Your task to perform on an android device: Go to privacy settings Image 0: 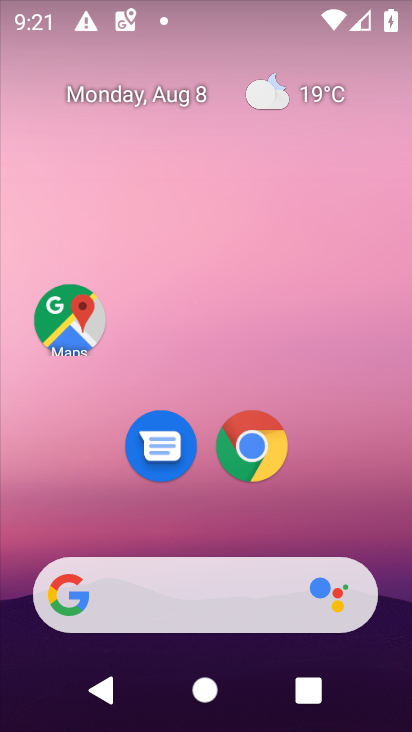
Step 0: drag from (371, 543) to (333, 216)
Your task to perform on an android device: Go to privacy settings Image 1: 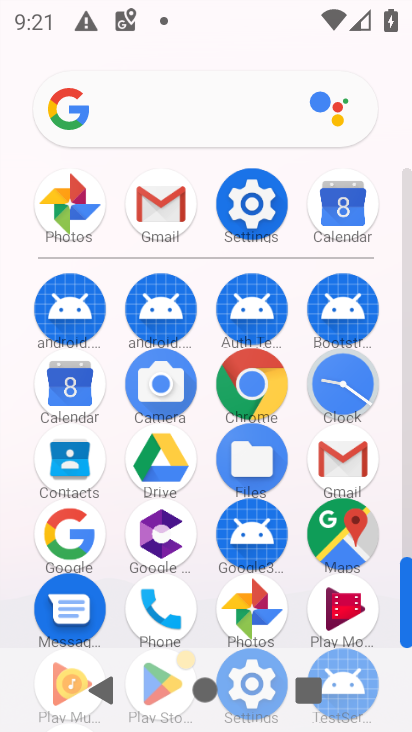
Step 1: click (256, 203)
Your task to perform on an android device: Go to privacy settings Image 2: 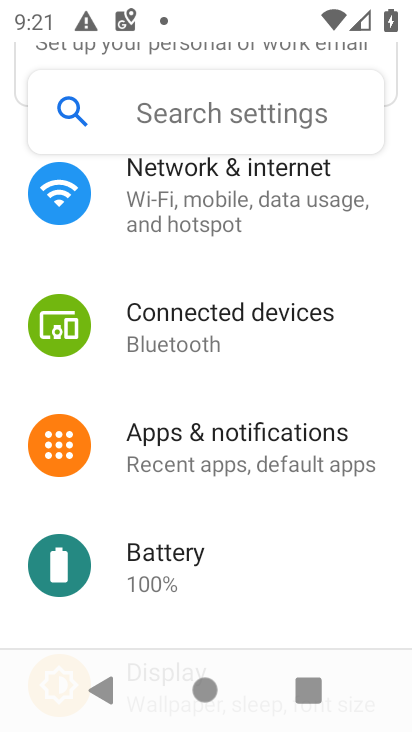
Step 2: drag from (263, 514) to (295, 226)
Your task to perform on an android device: Go to privacy settings Image 3: 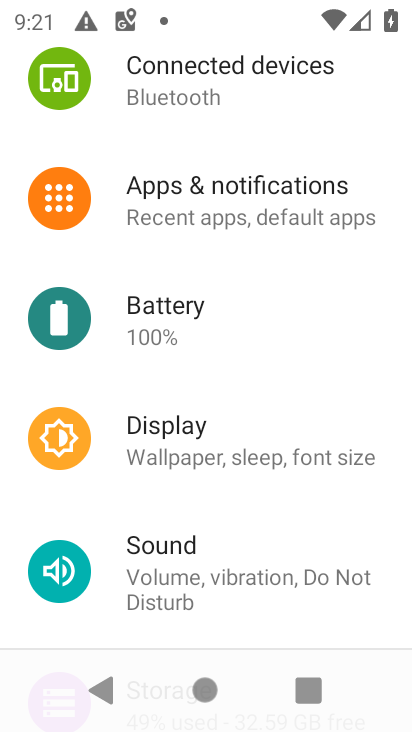
Step 3: drag from (267, 545) to (279, 261)
Your task to perform on an android device: Go to privacy settings Image 4: 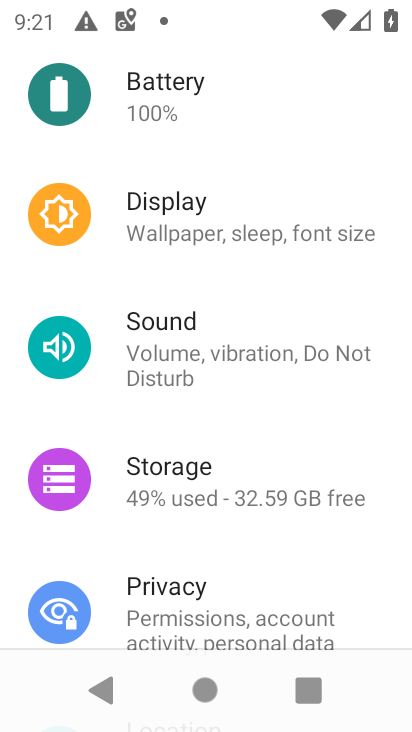
Step 4: drag from (187, 590) to (237, 290)
Your task to perform on an android device: Go to privacy settings Image 5: 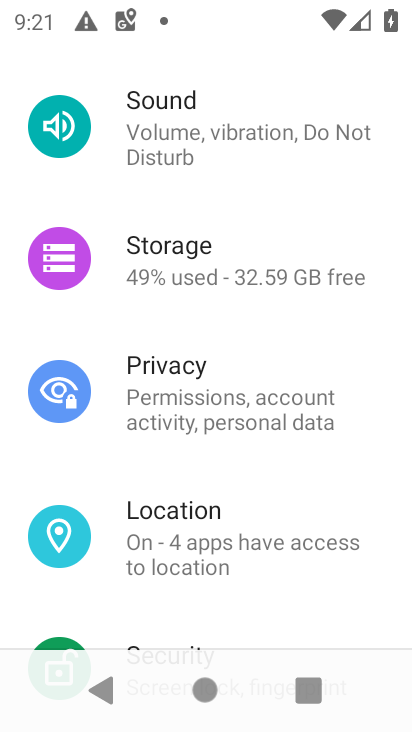
Step 5: click (163, 380)
Your task to perform on an android device: Go to privacy settings Image 6: 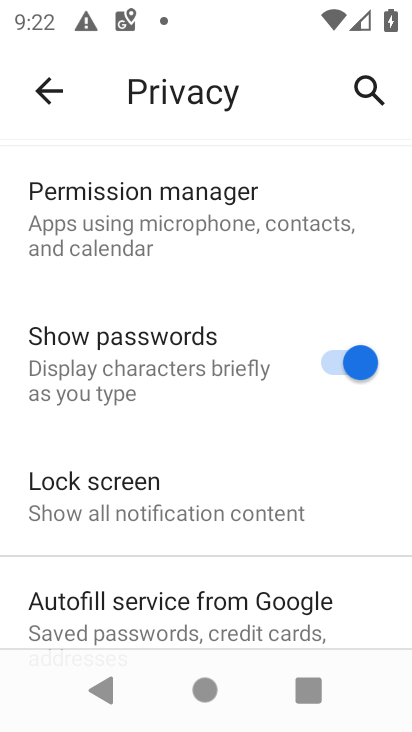
Step 6: task complete